Your task to perform on an android device: Open Yahoo.com Image 0: 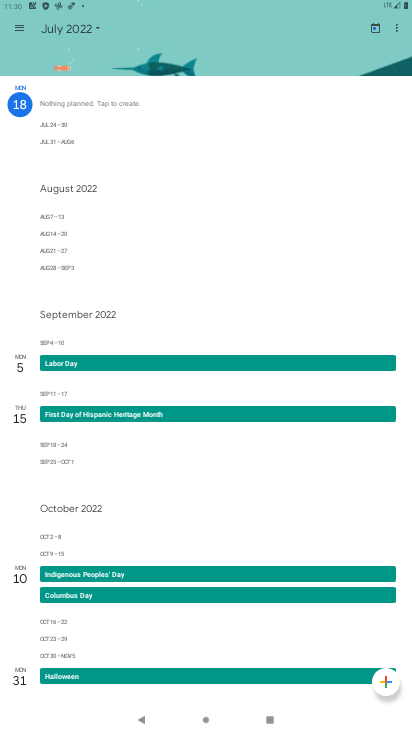
Step 0: press home button
Your task to perform on an android device: Open Yahoo.com Image 1: 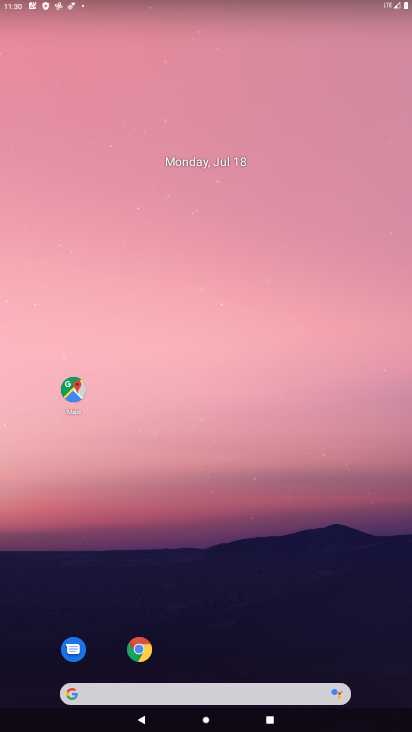
Step 1: click (208, 695)
Your task to perform on an android device: Open Yahoo.com Image 2: 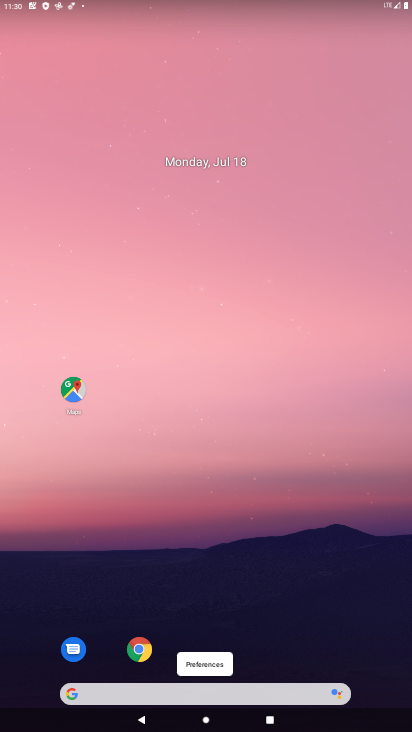
Step 2: drag from (214, 691) to (227, 26)
Your task to perform on an android device: Open Yahoo.com Image 3: 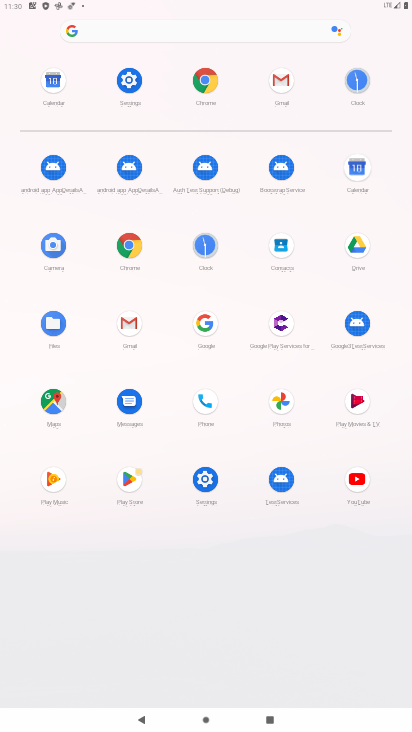
Step 3: click (171, 34)
Your task to perform on an android device: Open Yahoo.com Image 4: 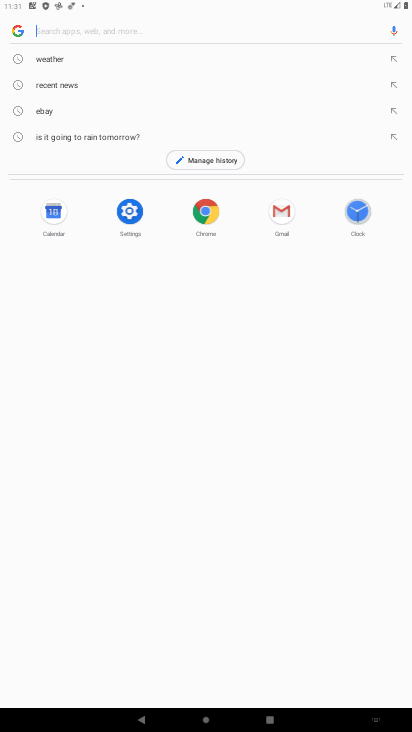
Step 4: type "yahoo.com"
Your task to perform on an android device: Open Yahoo.com Image 5: 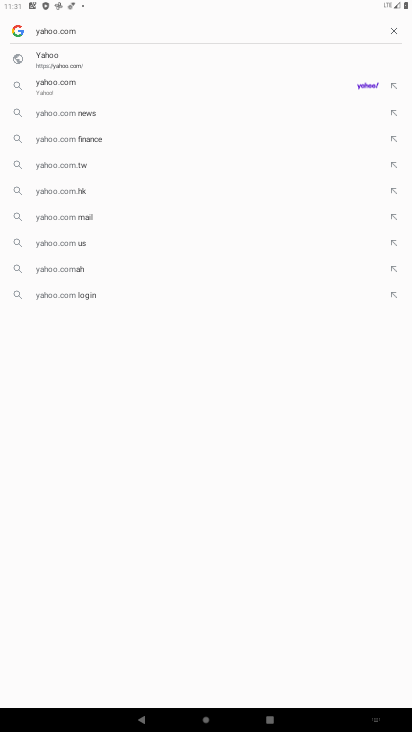
Step 5: click (104, 58)
Your task to perform on an android device: Open Yahoo.com Image 6: 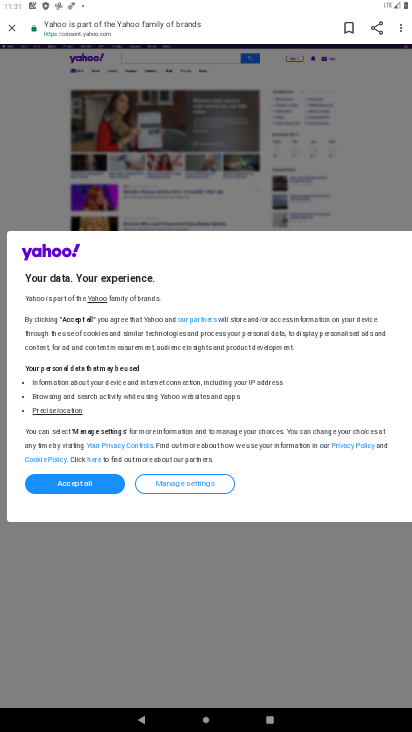
Step 6: task complete